Your task to perform on an android device: turn off javascript in the chrome app Image 0: 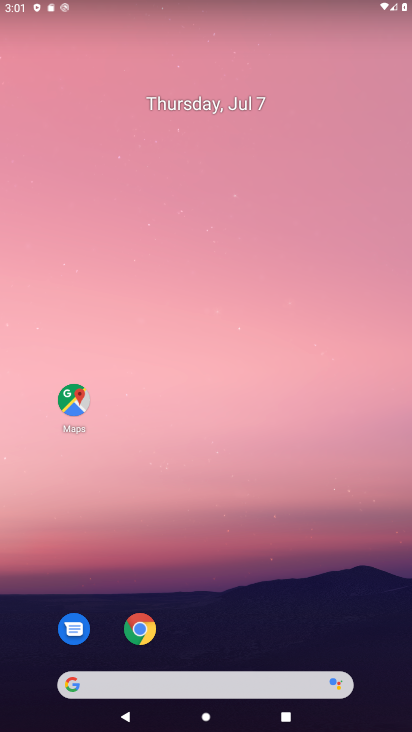
Step 0: drag from (230, 579) to (297, 255)
Your task to perform on an android device: turn off javascript in the chrome app Image 1: 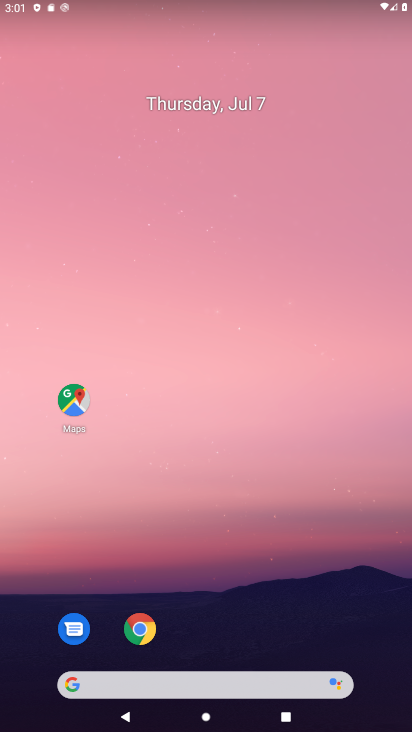
Step 1: drag from (194, 549) to (224, 194)
Your task to perform on an android device: turn off javascript in the chrome app Image 2: 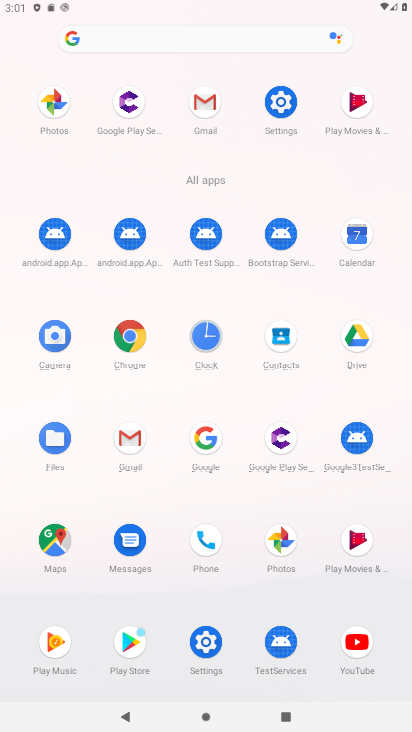
Step 2: click (271, 97)
Your task to perform on an android device: turn off javascript in the chrome app Image 3: 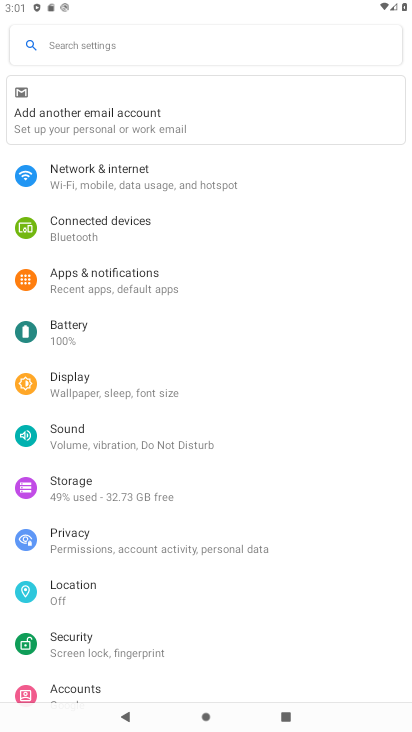
Step 3: press home button
Your task to perform on an android device: turn off javascript in the chrome app Image 4: 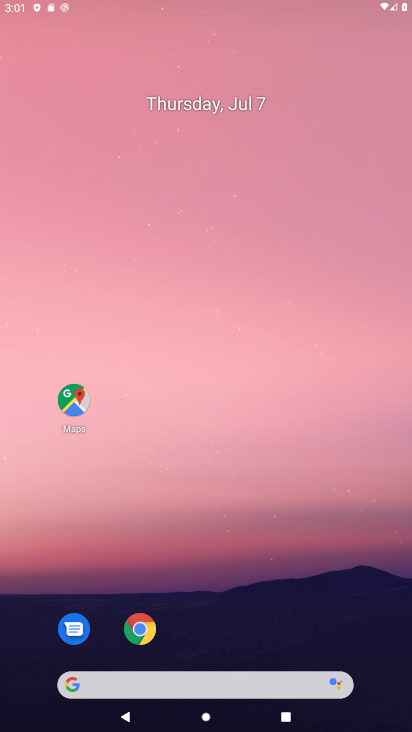
Step 4: drag from (220, 627) to (234, 231)
Your task to perform on an android device: turn off javascript in the chrome app Image 5: 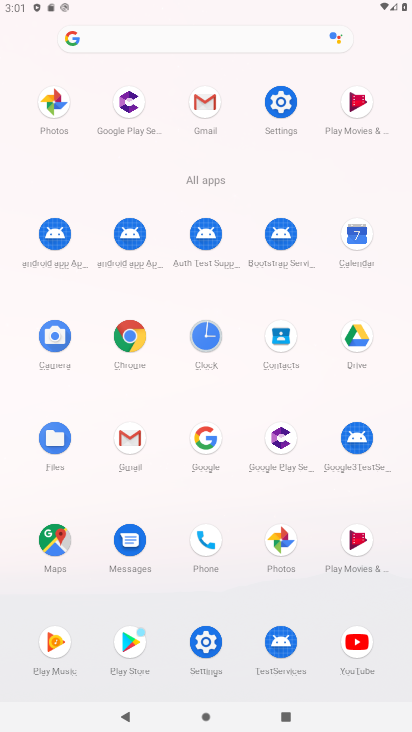
Step 5: click (132, 331)
Your task to perform on an android device: turn off javascript in the chrome app Image 6: 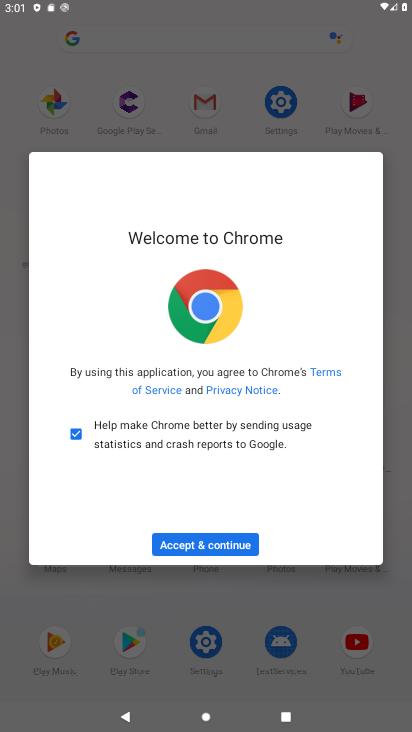
Step 6: click (186, 539)
Your task to perform on an android device: turn off javascript in the chrome app Image 7: 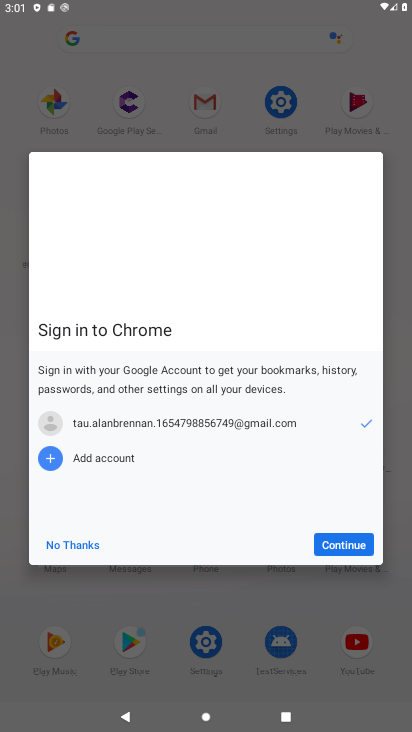
Step 7: click (355, 548)
Your task to perform on an android device: turn off javascript in the chrome app Image 8: 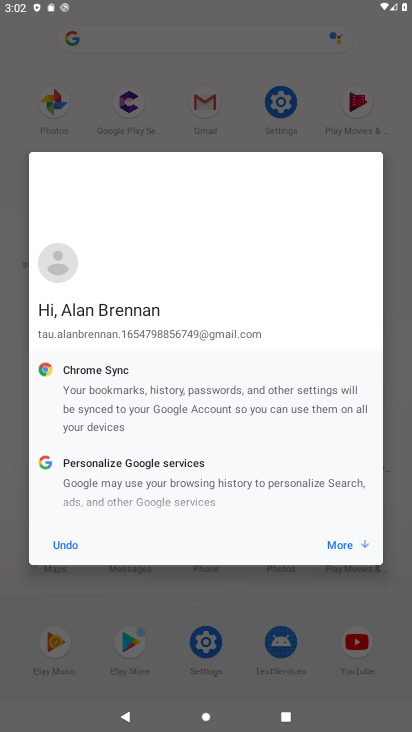
Step 8: click (353, 546)
Your task to perform on an android device: turn off javascript in the chrome app Image 9: 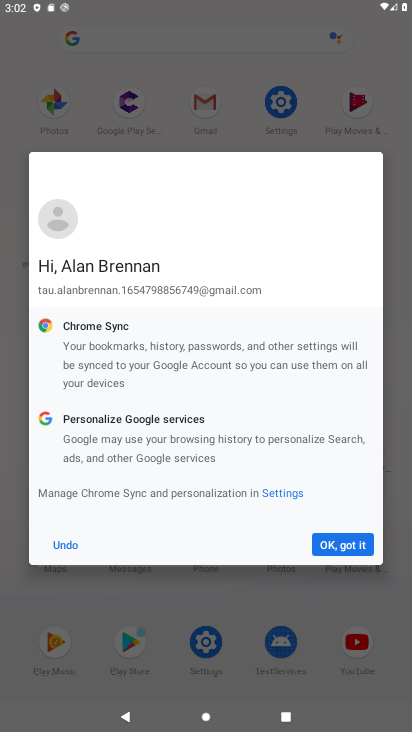
Step 9: click (353, 546)
Your task to perform on an android device: turn off javascript in the chrome app Image 10: 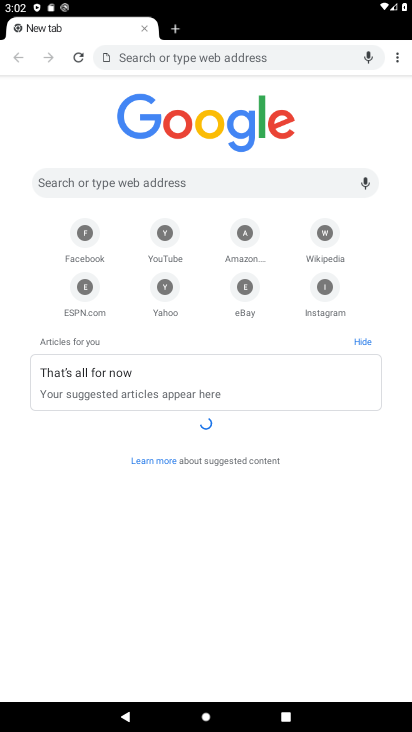
Step 10: click (396, 56)
Your task to perform on an android device: turn off javascript in the chrome app Image 11: 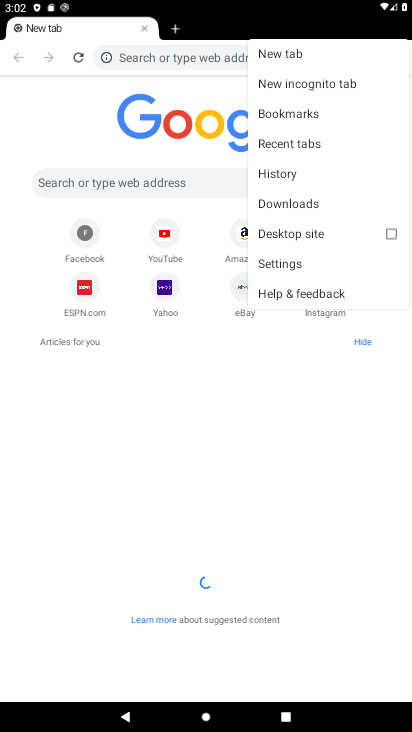
Step 11: click (300, 260)
Your task to perform on an android device: turn off javascript in the chrome app Image 12: 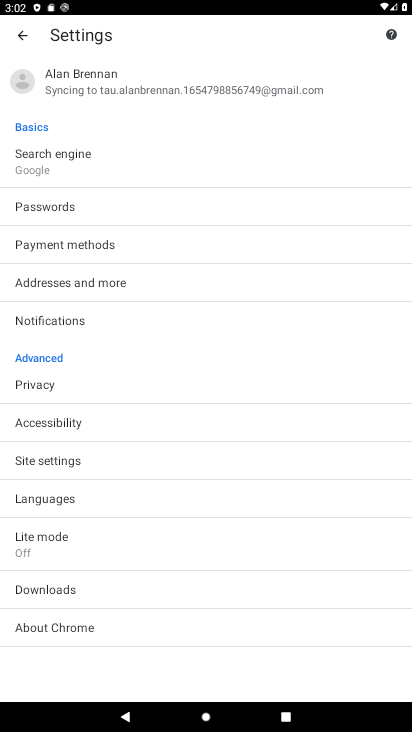
Step 12: drag from (103, 583) to (162, 262)
Your task to perform on an android device: turn off javascript in the chrome app Image 13: 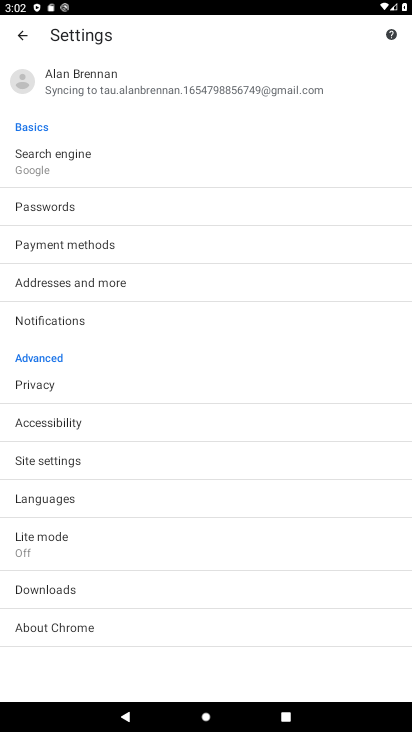
Step 13: click (80, 459)
Your task to perform on an android device: turn off javascript in the chrome app Image 14: 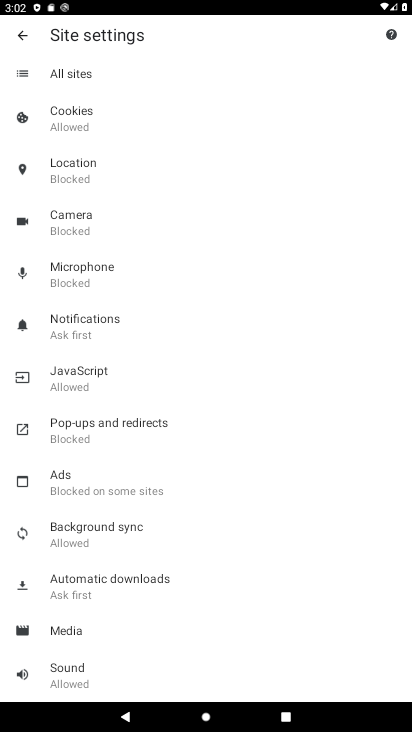
Step 14: click (78, 376)
Your task to perform on an android device: turn off javascript in the chrome app Image 15: 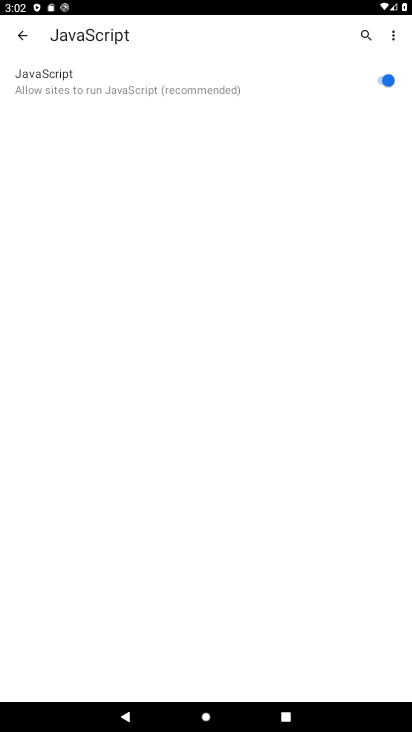
Step 15: click (388, 77)
Your task to perform on an android device: turn off javascript in the chrome app Image 16: 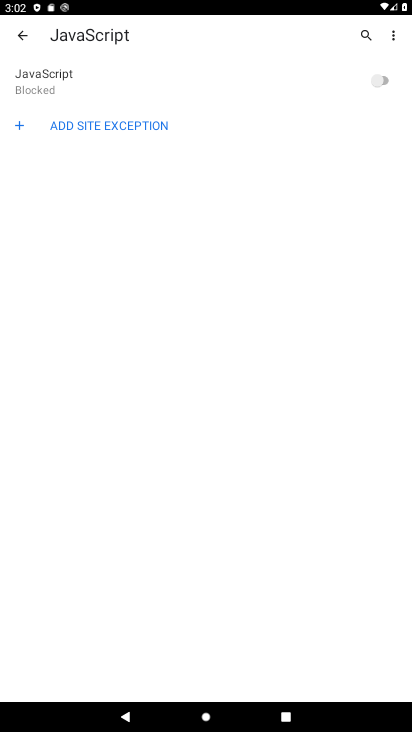
Step 16: task complete